Your task to perform on an android device: Open Google Chrome and open the bookmarks view Image 0: 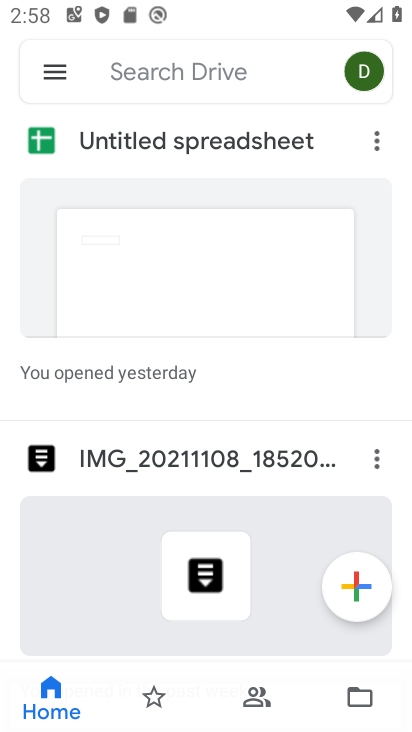
Step 0: press home button
Your task to perform on an android device: Open Google Chrome and open the bookmarks view Image 1: 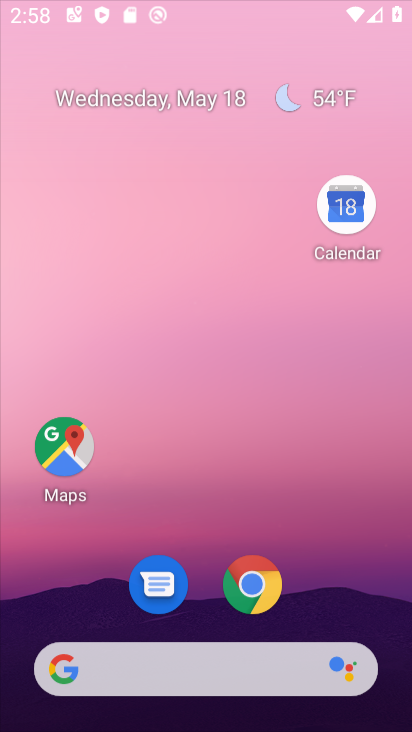
Step 1: drag from (199, 523) to (202, 69)
Your task to perform on an android device: Open Google Chrome and open the bookmarks view Image 2: 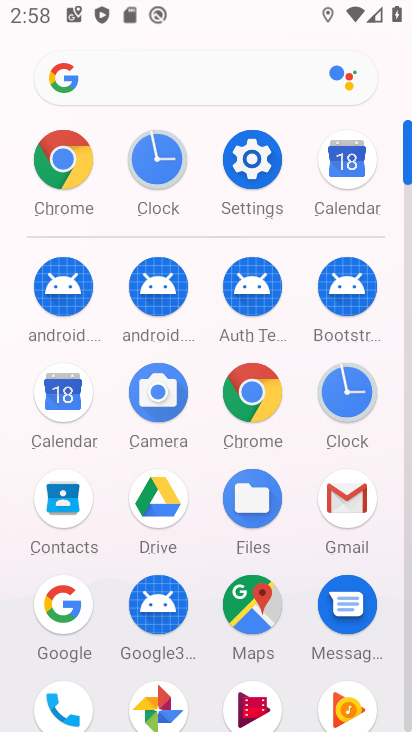
Step 2: click (250, 396)
Your task to perform on an android device: Open Google Chrome and open the bookmarks view Image 3: 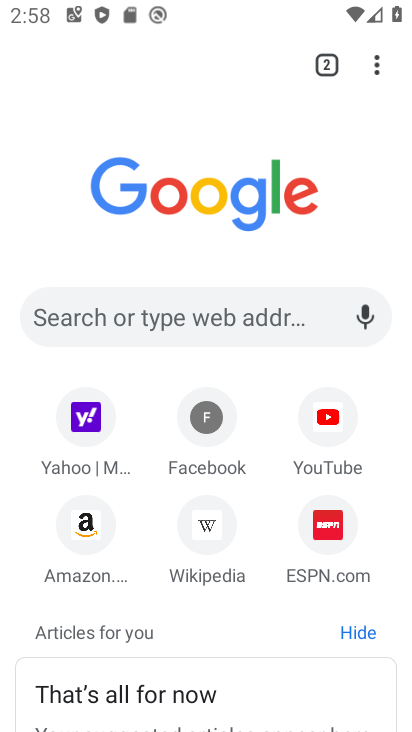
Step 3: drag from (224, 654) to (198, 150)
Your task to perform on an android device: Open Google Chrome and open the bookmarks view Image 4: 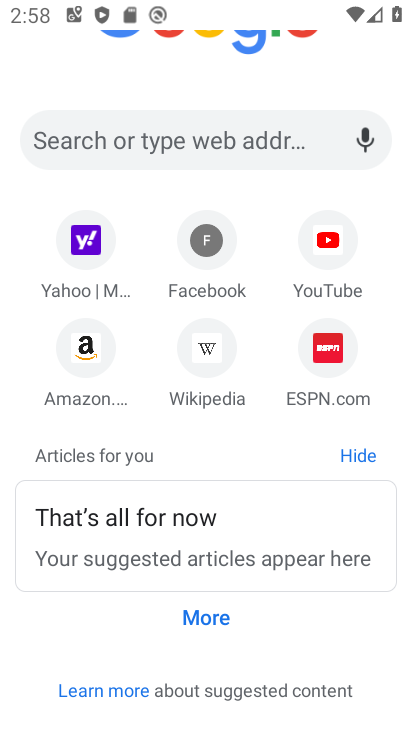
Step 4: drag from (259, 207) to (366, 731)
Your task to perform on an android device: Open Google Chrome and open the bookmarks view Image 5: 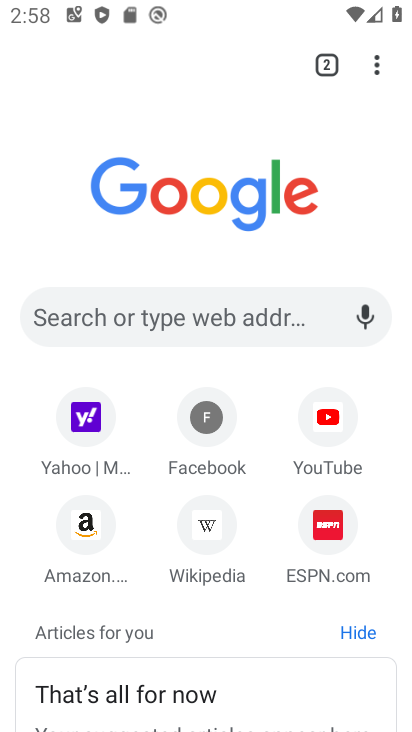
Step 5: click (376, 66)
Your task to perform on an android device: Open Google Chrome and open the bookmarks view Image 6: 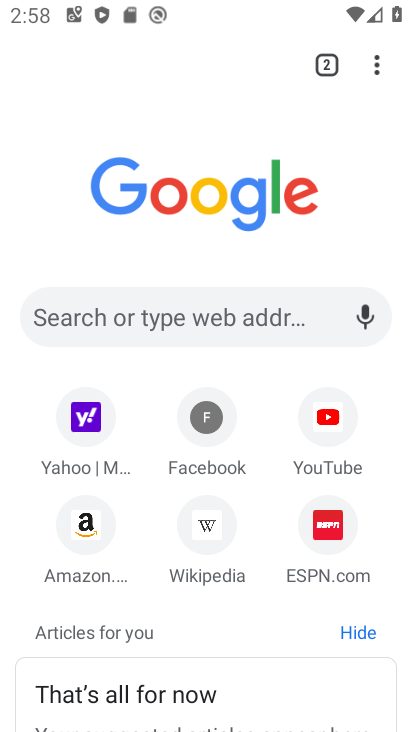
Step 6: click (376, 66)
Your task to perform on an android device: Open Google Chrome and open the bookmarks view Image 7: 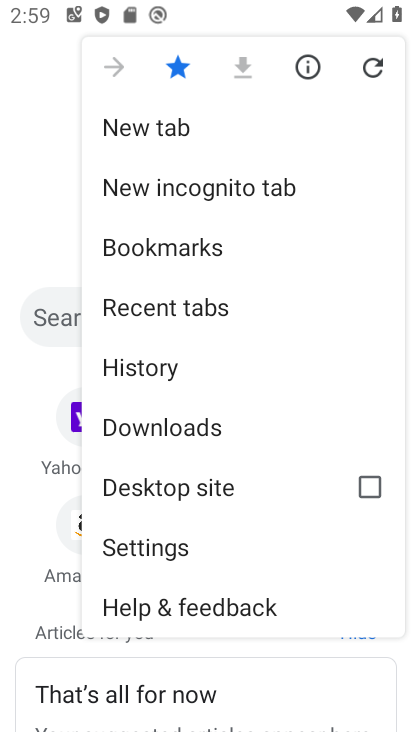
Step 7: click (160, 259)
Your task to perform on an android device: Open Google Chrome and open the bookmarks view Image 8: 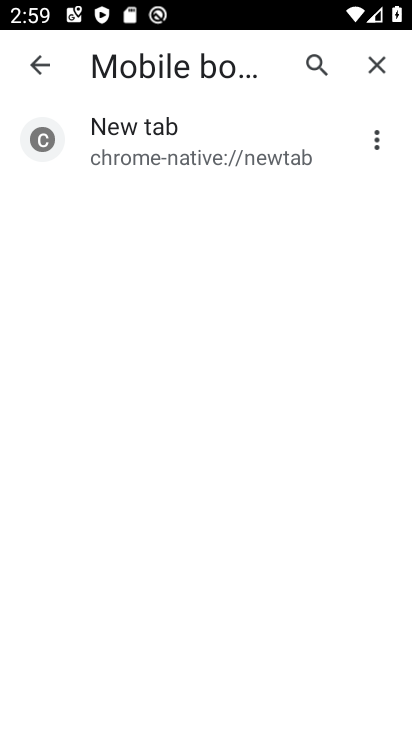
Step 8: task complete